Your task to perform on an android device: Is it going to rain today? Image 0: 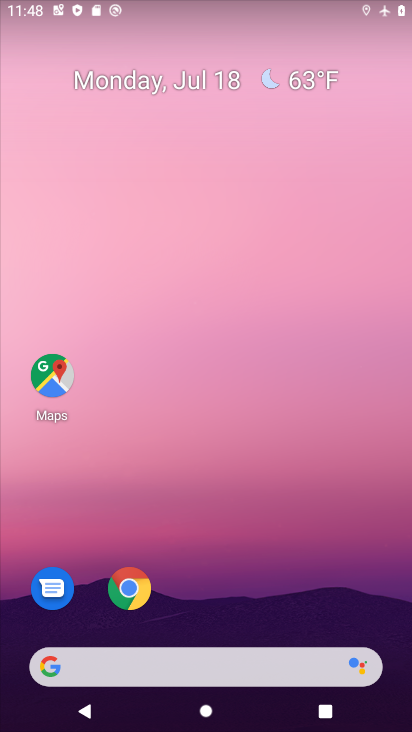
Step 0: drag from (231, 659) to (380, 10)
Your task to perform on an android device: Is it going to rain today? Image 1: 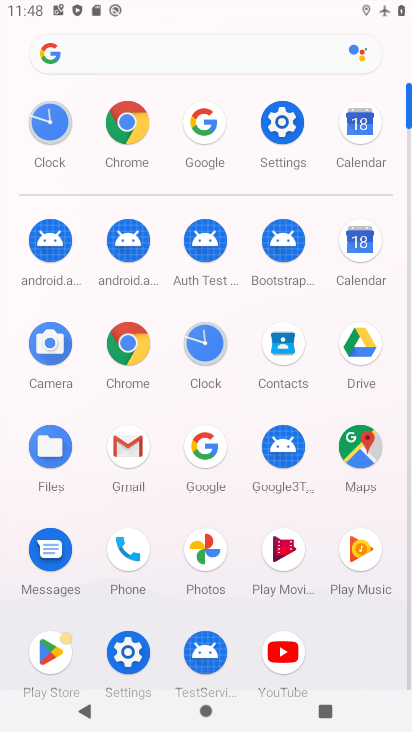
Step 1: click (203, 465)
Your task to perform on an android device: Is it going to rain today? Image 2: 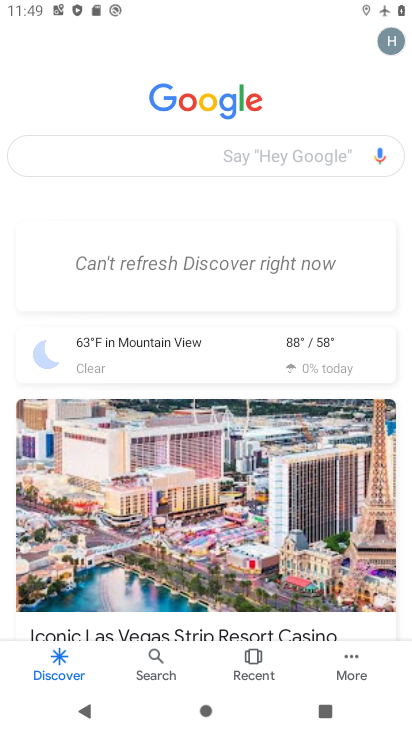
Step 2: click (191, 343)
Your task to perform on an android device: Is it going to rain today? Image 3: 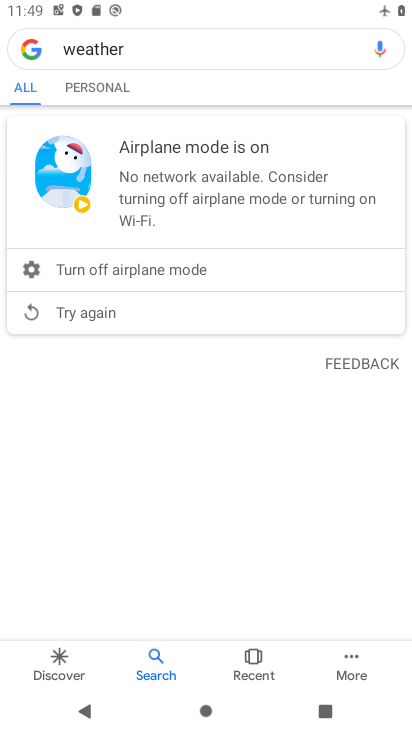
Step 3: task complete